Your task to perform on an android device: toggle notifications settings in the gmail app Image 0: 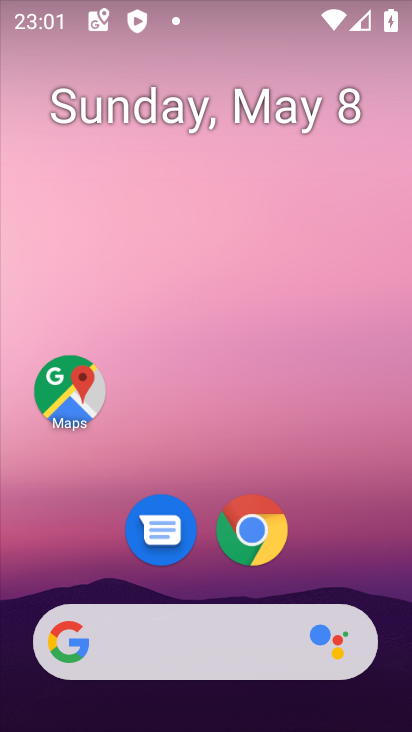
Step 0: drag from (363, 552) to (320, 101)
Your task to perform on an android device: toggle notifications settings in the gmail app Image 1: 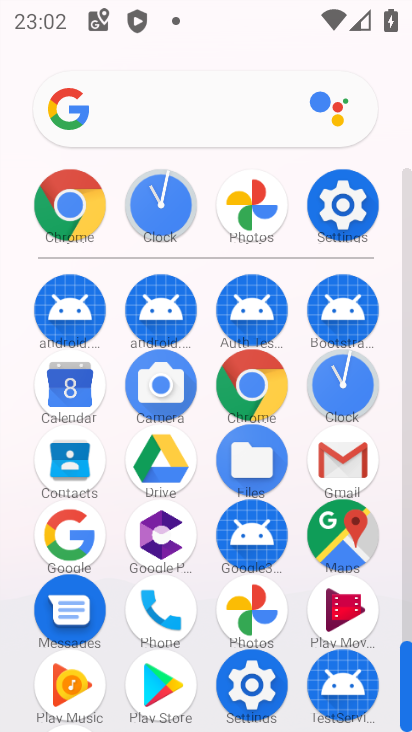
Step 1: click (335, 453)
Your task to perform on an android device: toggle notifications settings in the gmail app Image 2: 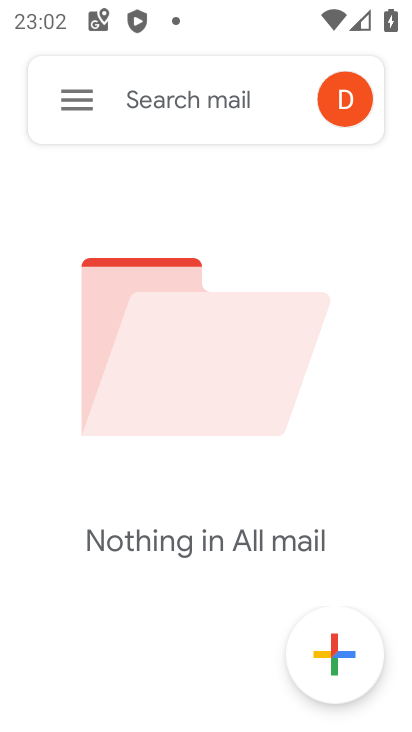
Step 2: click (77, 117)
Your task to perform on an android device: toggle notifications settings in the gmail app Image 3: 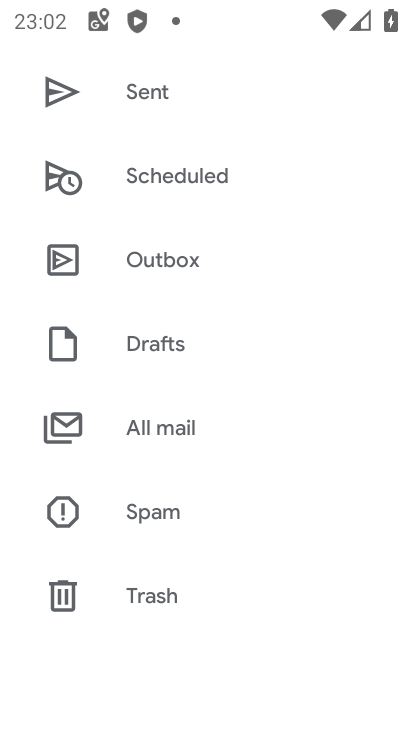
Step 3: drag from (224, 657) to (250, 163)
Your task to perform on an android device: toggle notifications settings in the gmail app Image 4: 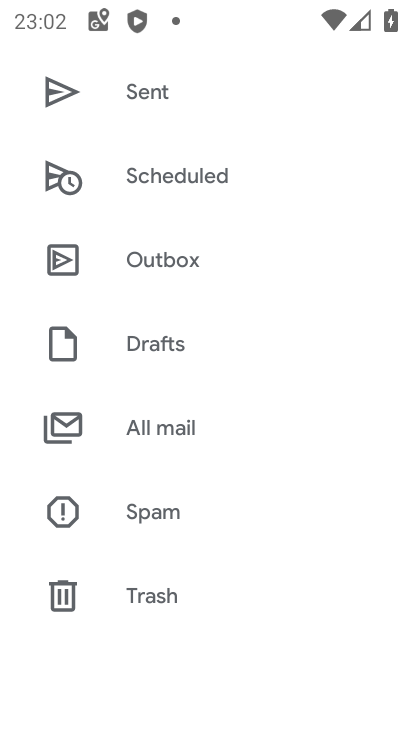
Step 4: drag from (201, 604) to (231, 223)
Your task to perform on an android device: toggle notifications settings in the gmail app Image 5: 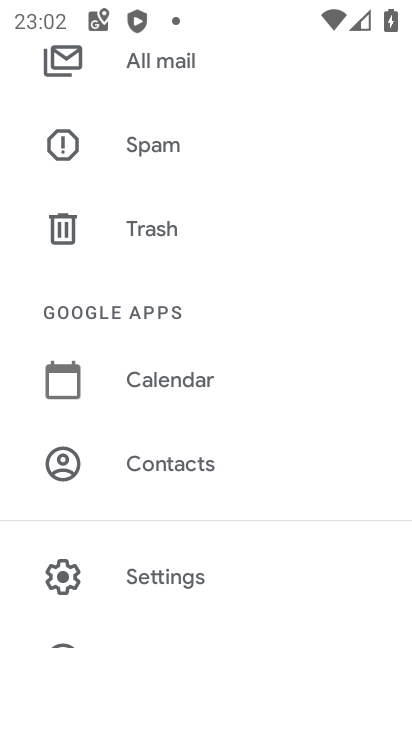
Step 5: drag from (217, 574) to (244, 260)
Your task to perform on an android device: toggle notifications settings in the gmail app Image 6: 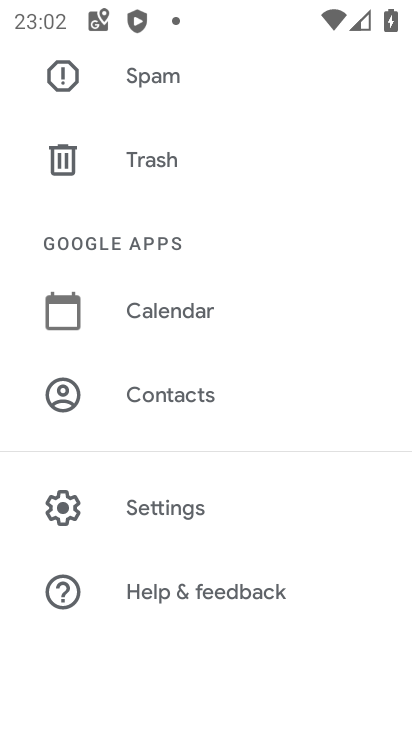
Step 6: click (193, 510)
Your task to perform on an android device: toggle notifications settings in the gmail app Image 7: 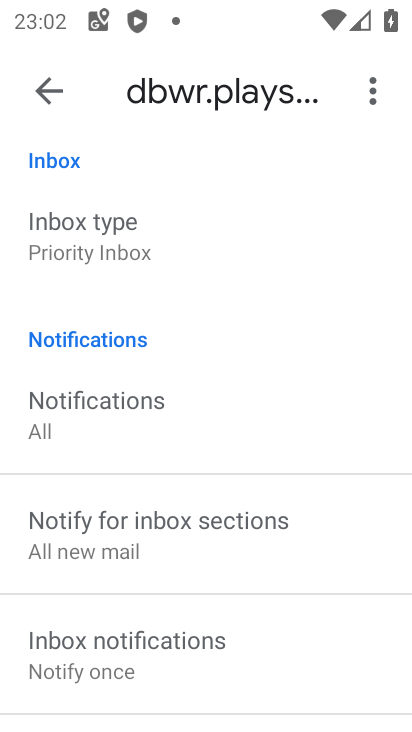
Step 7: click (139, 427)
Your task to perform on an android device: toggle notifications settings in the gmail app Image 8: 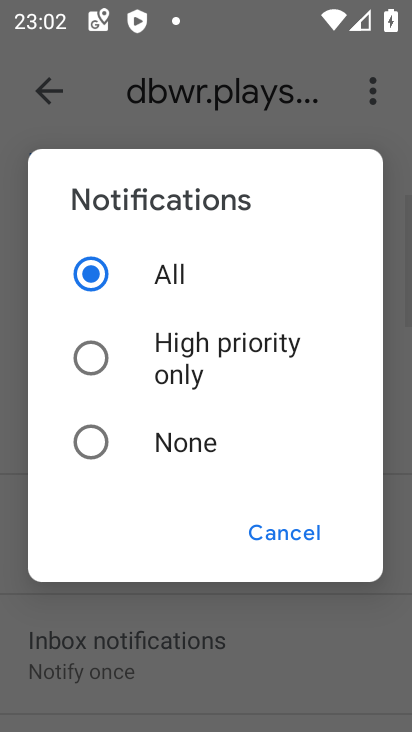
Step 8: click (189, 448)
Your task to perform on an android device: toggle notifications settings in the gmail app Image 9: 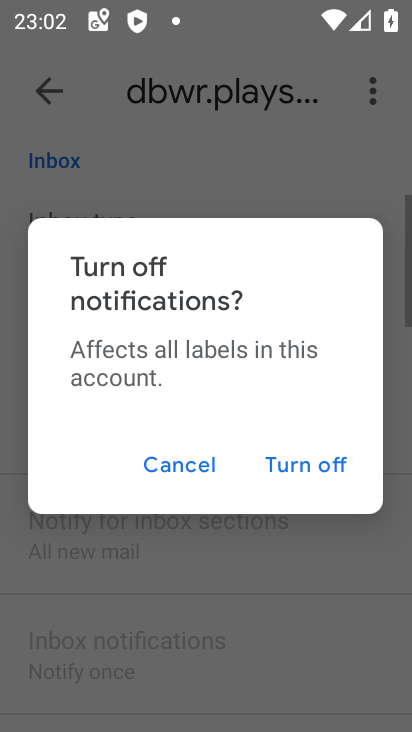
Step 9: task complete